Your task to perform on an android device: Open network settings Image 0: 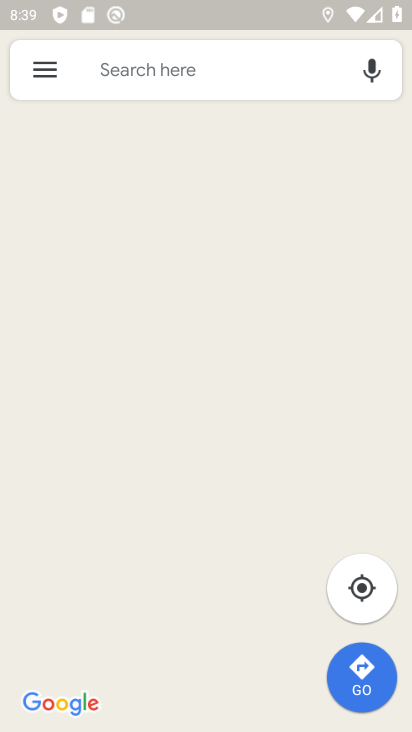
Step 0: press home button
Your task to perform on an android device: Open network settings Image 1: 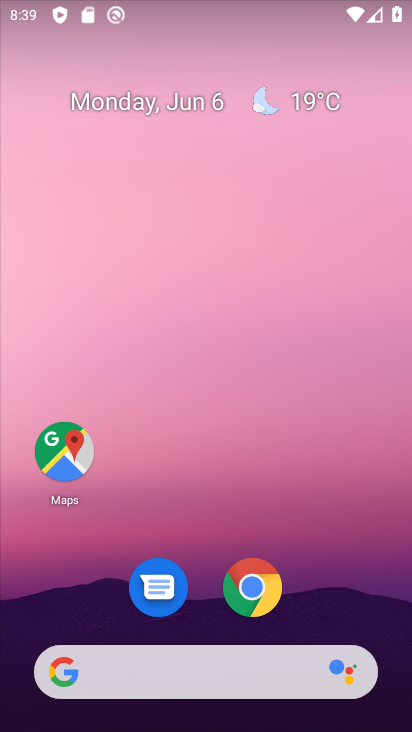
Step 1: drag from (108, 620) to (237, 149)
Your task to perform on an android device: Open network settings Image 2: 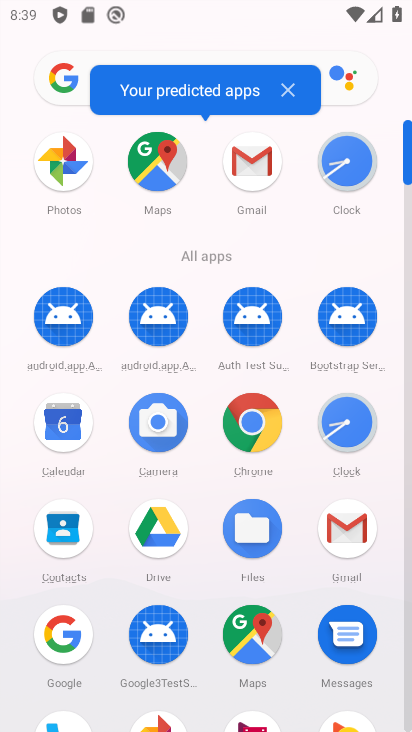
Step 2: drag from (158, 654) to (250, 275)
Your task to perform on an android device: Open network settings Image 3: 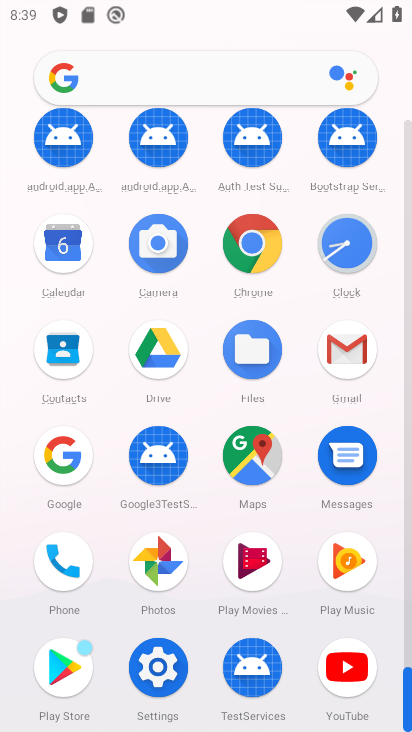
Step 3: click (160, 675)
Your task to perform on an android device: Open network settings Image 4: 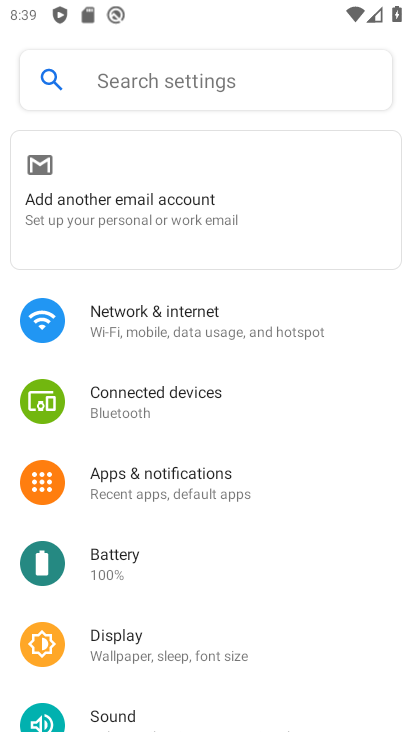
Step 4: click (221, 337)
Your task to perform on an android device: Open network settings Image 5: 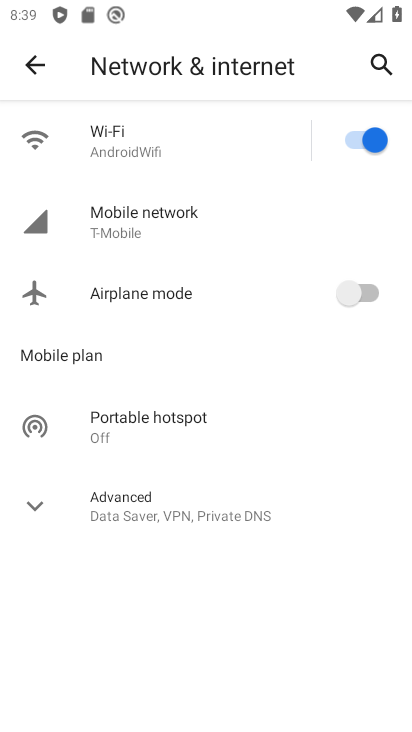
Step 5: click (132, 227)
Your task to perform on an android device: Open network settings Image 6: 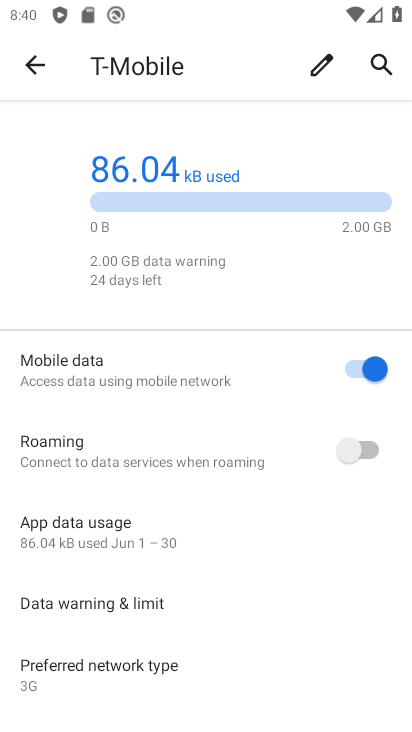
Step 6: task complete